Your task to perform on an android device: turn off data saver in the chrome app Image 0: 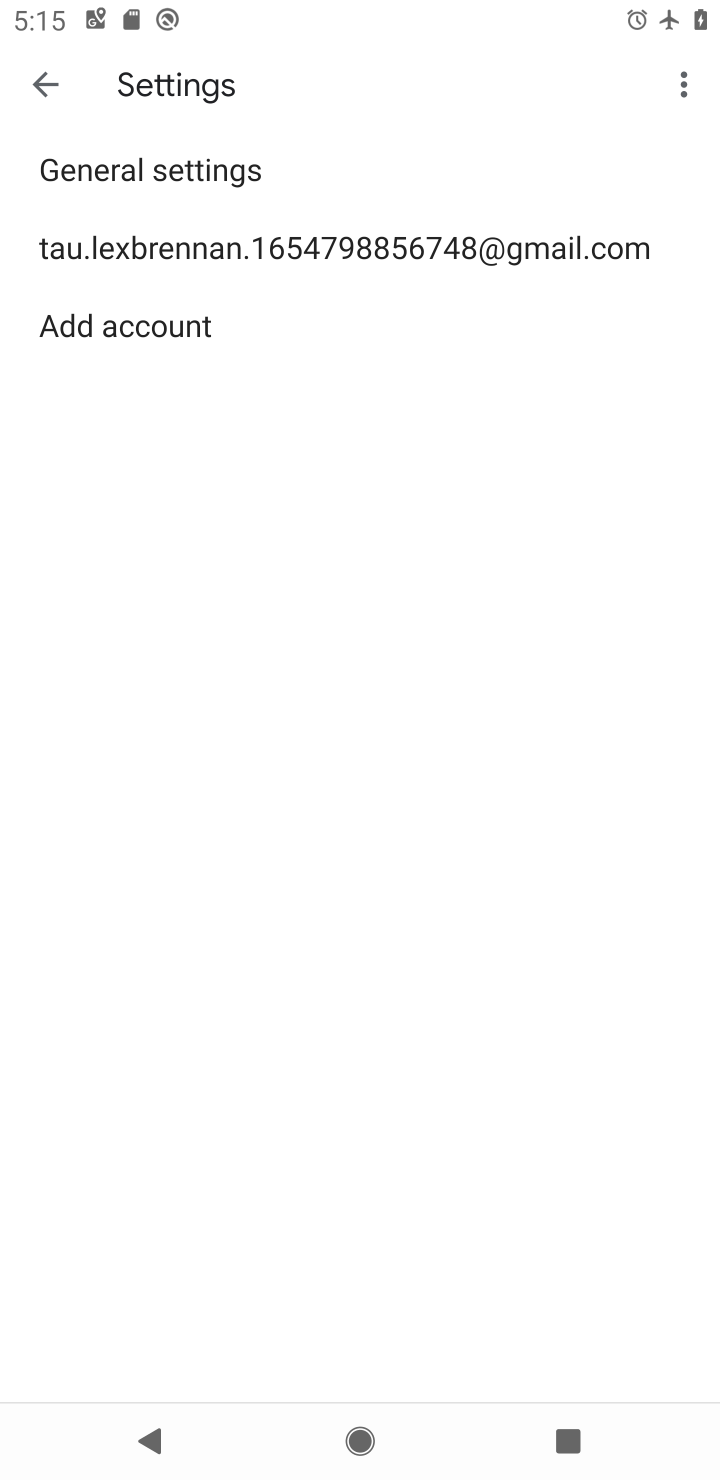
Step 0: press home button
Your task to perform on an android device: turn off data saver in the chrome app Image 1: 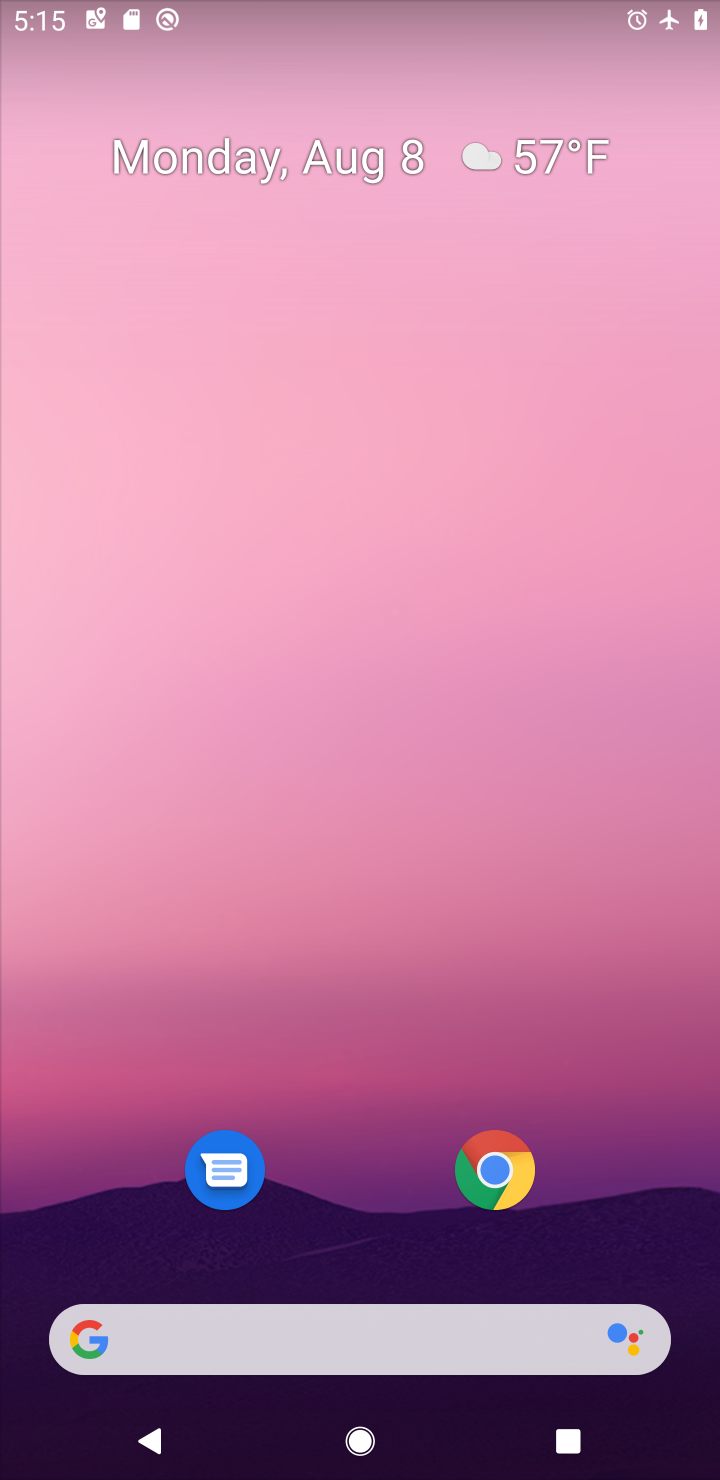
Step 1: click (494, 1171)
Your task to perform on an android device: turn off data saver in the chrome app Image 2: 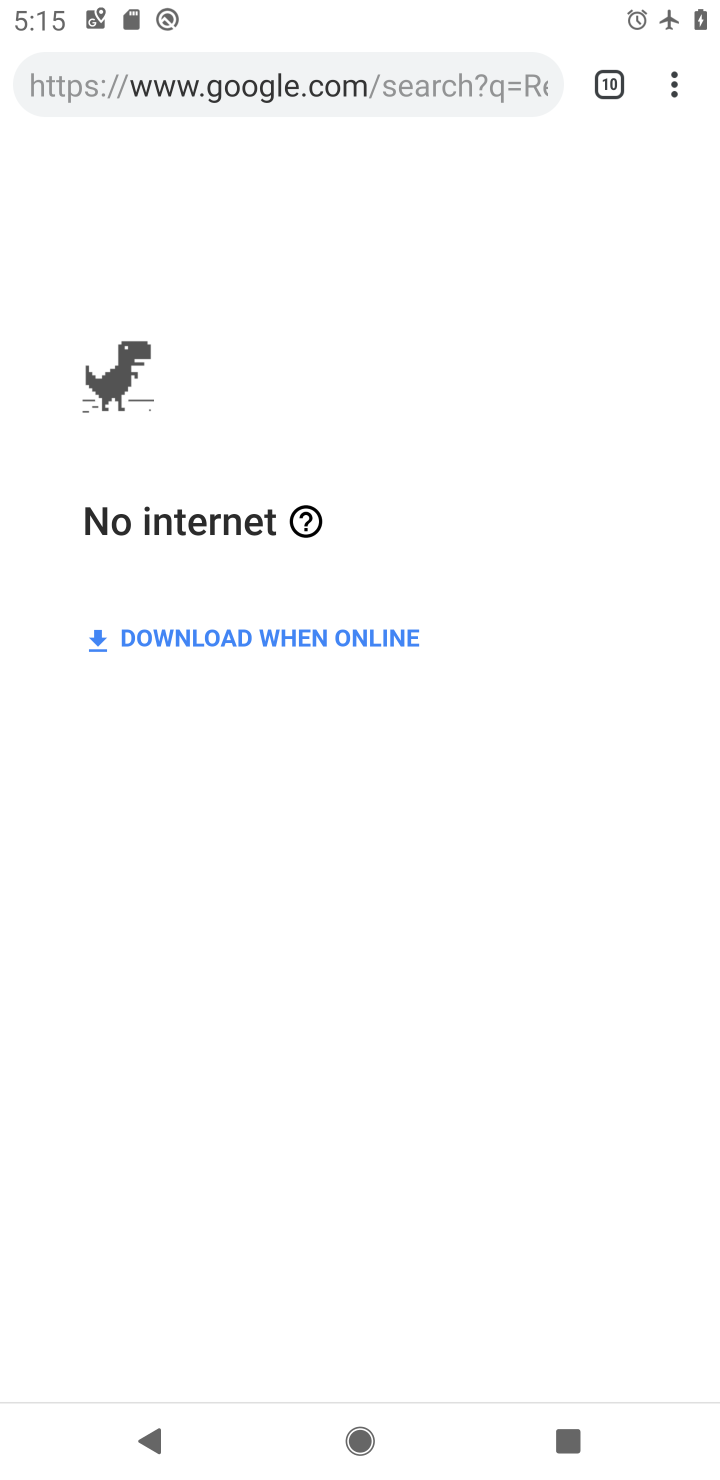
Step 2: click (675, 89)
Your task to perform on an android device: turn off data saver in the chrome app Image 3: 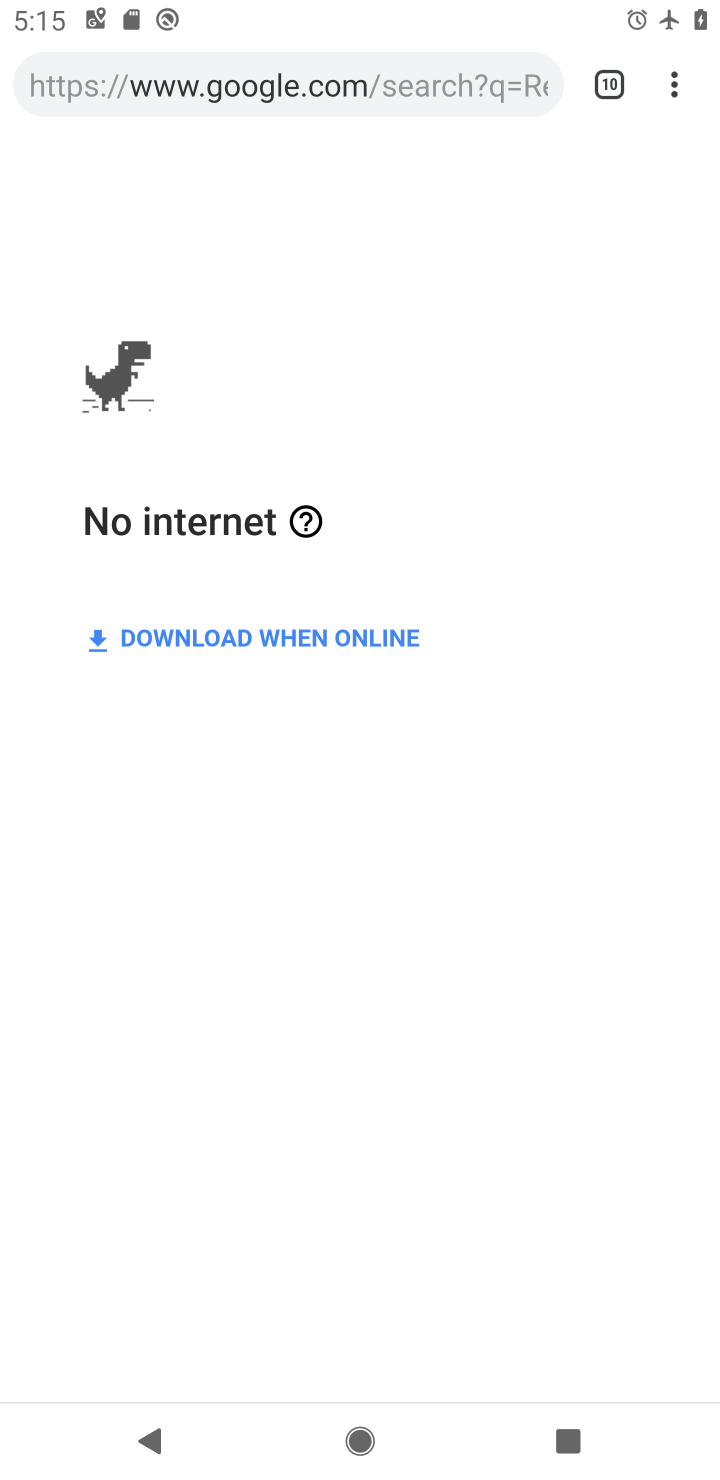
Step 3: drag from (675, 89) to (417, 956)
Your task to perform on an android device: turn off data saver in the chrome app Image 4: 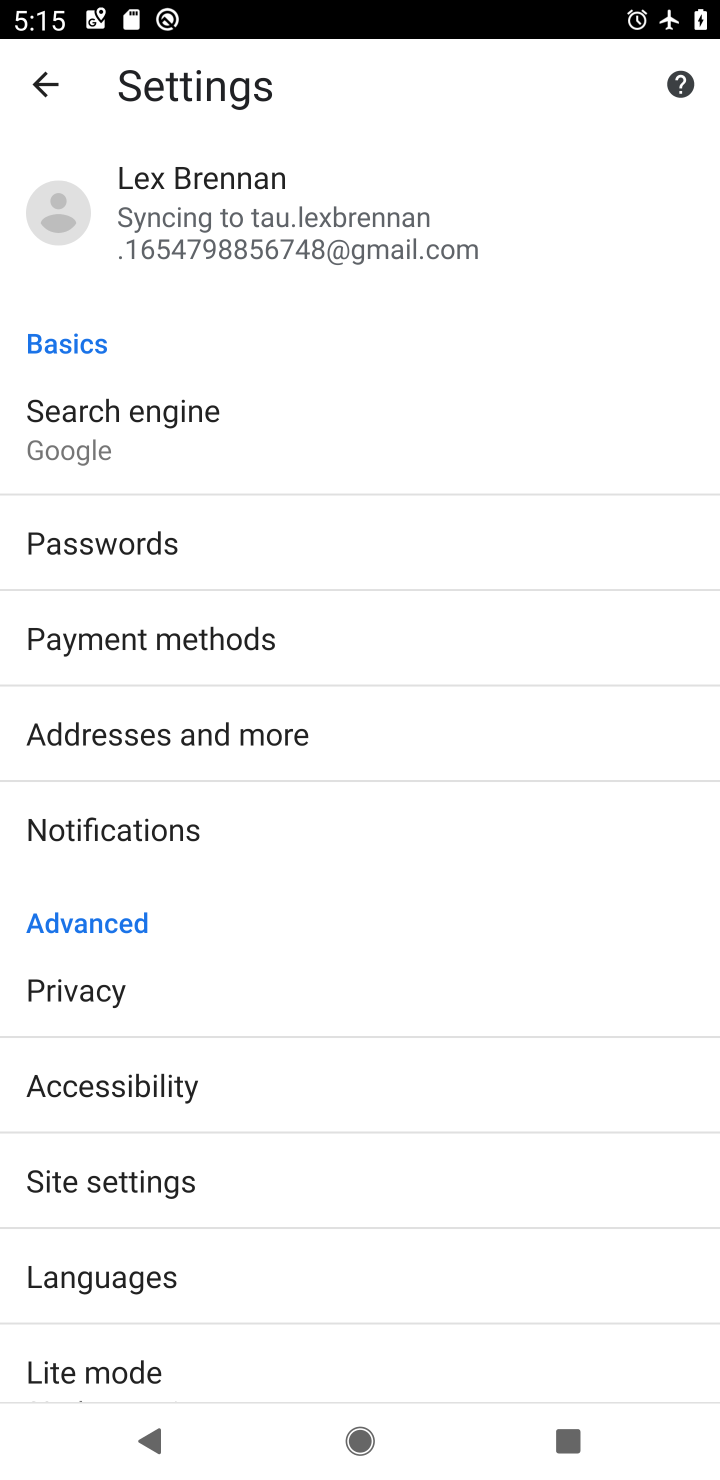
Step 4: drag from (169, 1337) to (167, 926)
Your task to perform on an android device: turn off data saver in the chrome app Image 5: 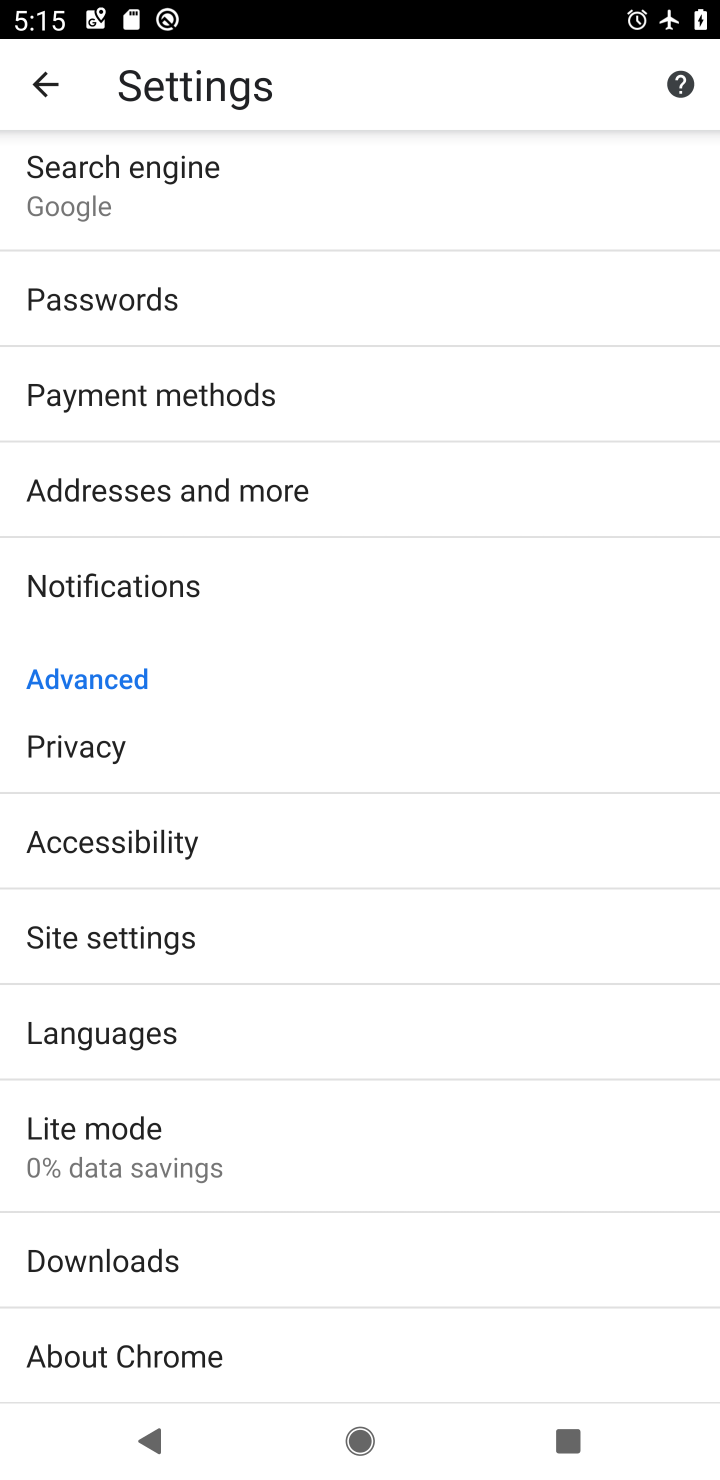
Step 5: click (185, 1149)
Your task to perform on an android device: turn off data saver in the chrome app Image 6: 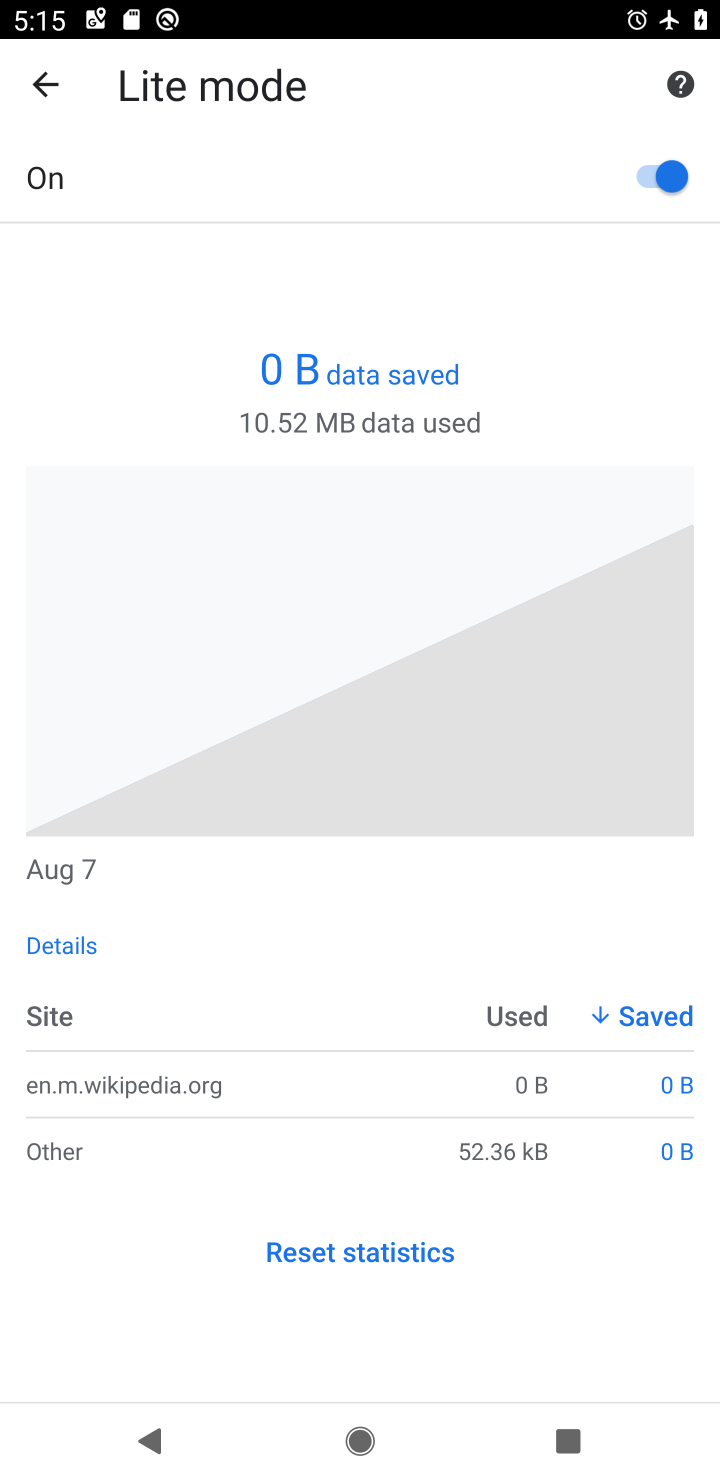
Step 6: click (636, 199)
Your task to perform on an android device: turn off data saver in the chrome app Image 7: 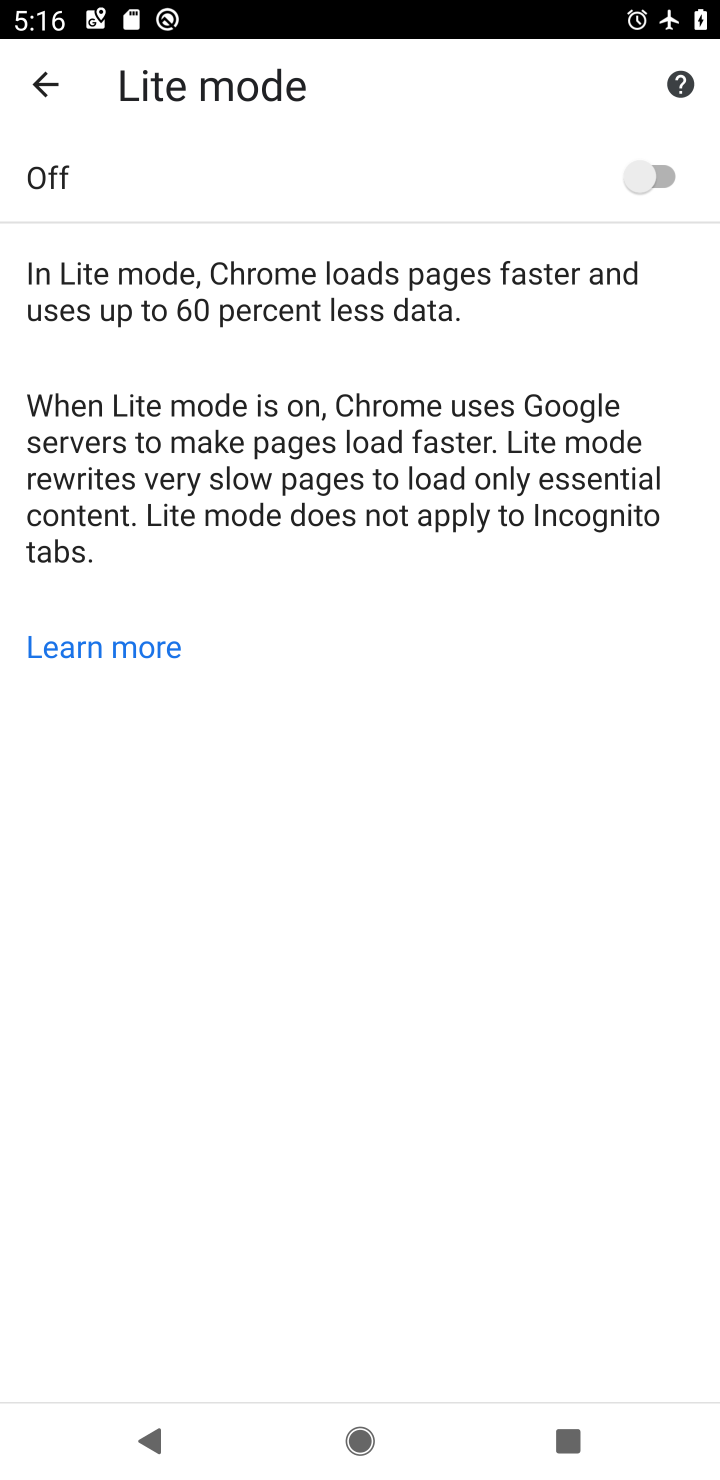
Step 7: task complete